Your task to perform on an android device: set the timer Image 0: 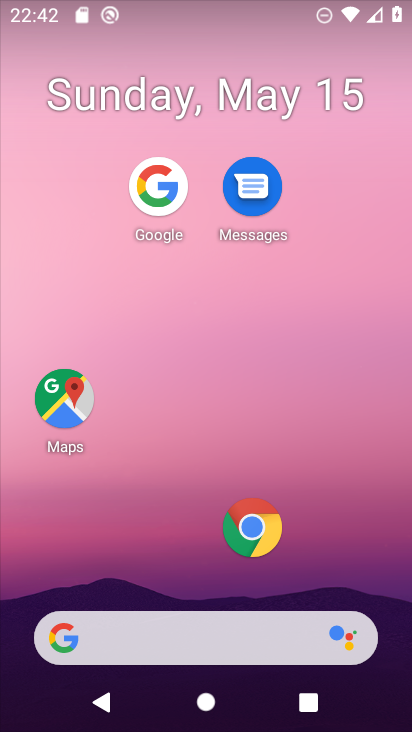
Step 0: drag from (156, 634) to (297, 94)
Your task to perform on an android device: set the timer Image 1: 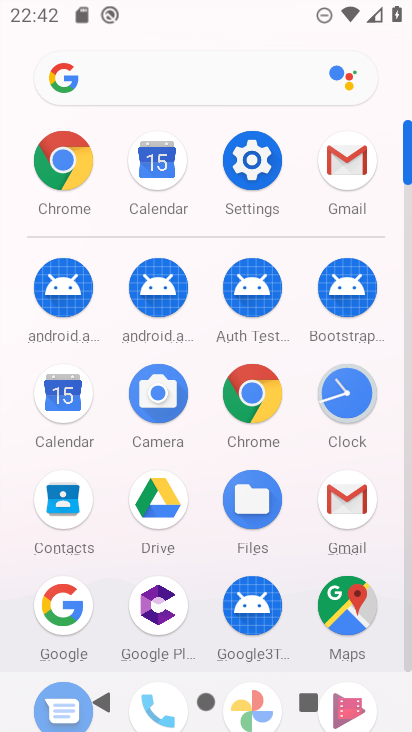
Step 1: click (343, 403)
Your task to perform on an android device: set the timer Image 2: 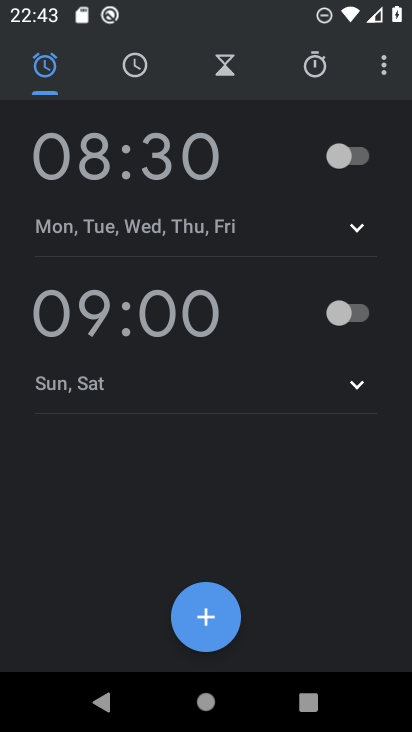
Step 2: click (225, 62)
Your task to perform on an android device: set the timer Image 3: 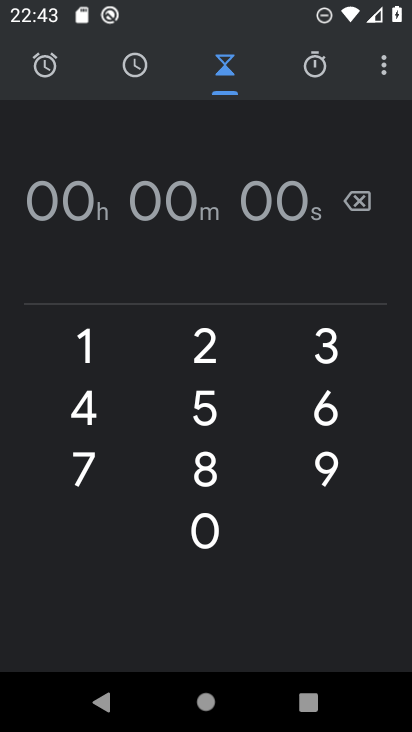
Step 3: click (212, 349)
Your task to perform on an android device: set the timer Image 4: 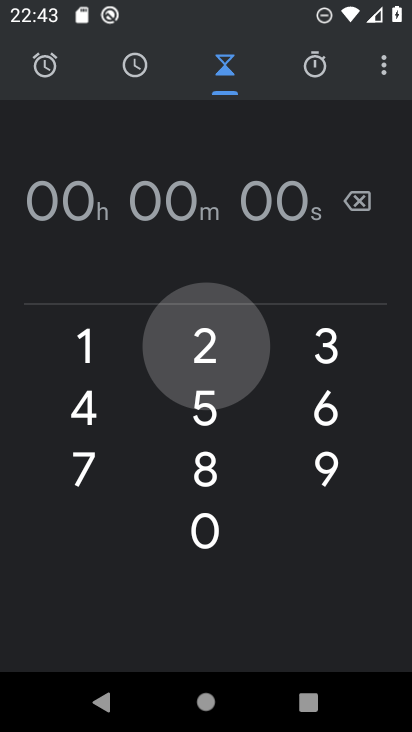
Step 4: click (212, 351)
Your task to perform on an android device: set the timer Image 5: 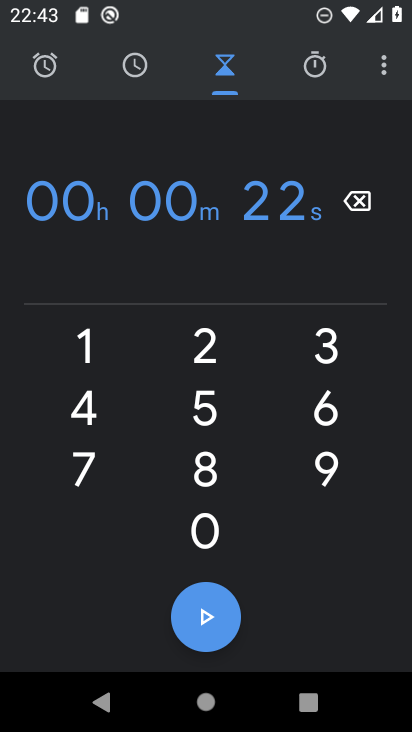
Step 5: click (221, 611)
Your task to perform on an android device: set the timer Image 6: 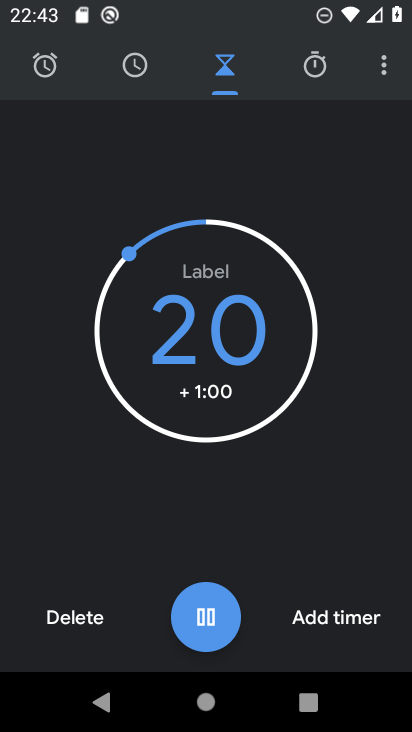
Step 6: click (207, 611)
Your task to perform on an android device: set the timer Image 7: 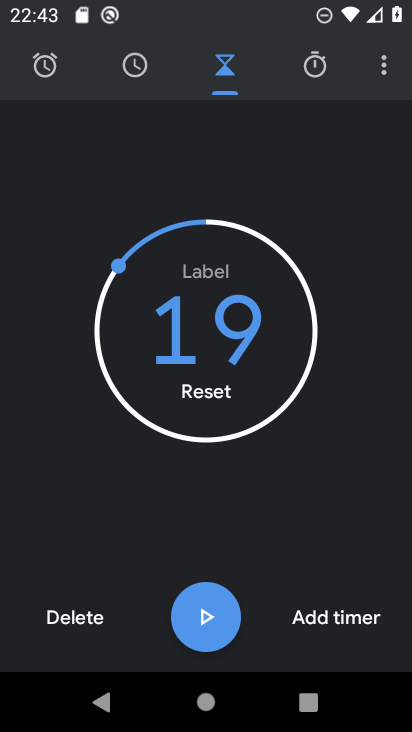
Step 7: task complete